Your task to perform on an android device: toggle airplane mode Image 0: 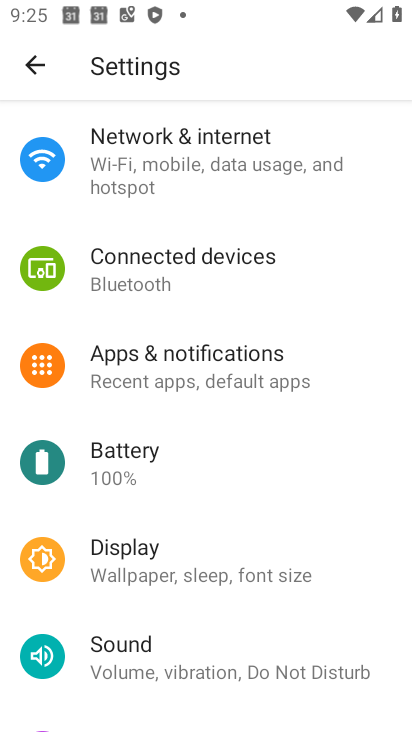
Step 0: click (271, 150)
Your task to perform on an android device: toggle airplane mode Image 1: 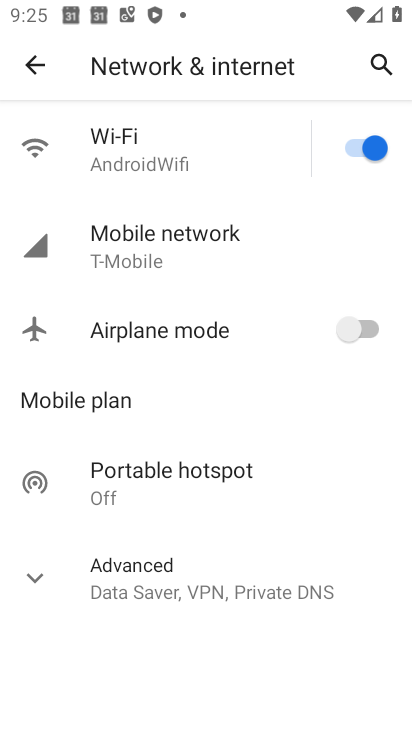
Step 1: click (362, 328)
Your task to perform on an android device: toggle airplane mode Image 2: 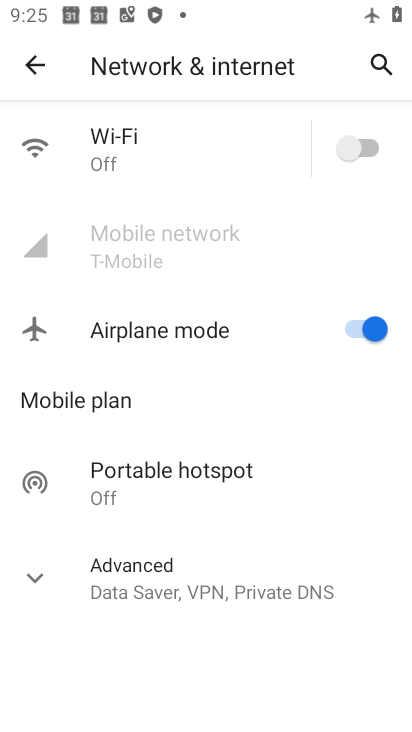
Step 2: click (362, 328)
Your task to perform on an android device: toggle airplane mode Image 3: 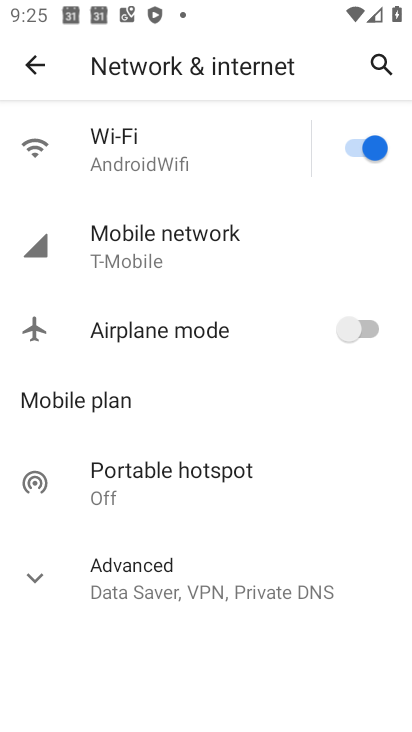
Step 3: task complete